Your task to perform on an android device: open app "Venmo" Image 0: 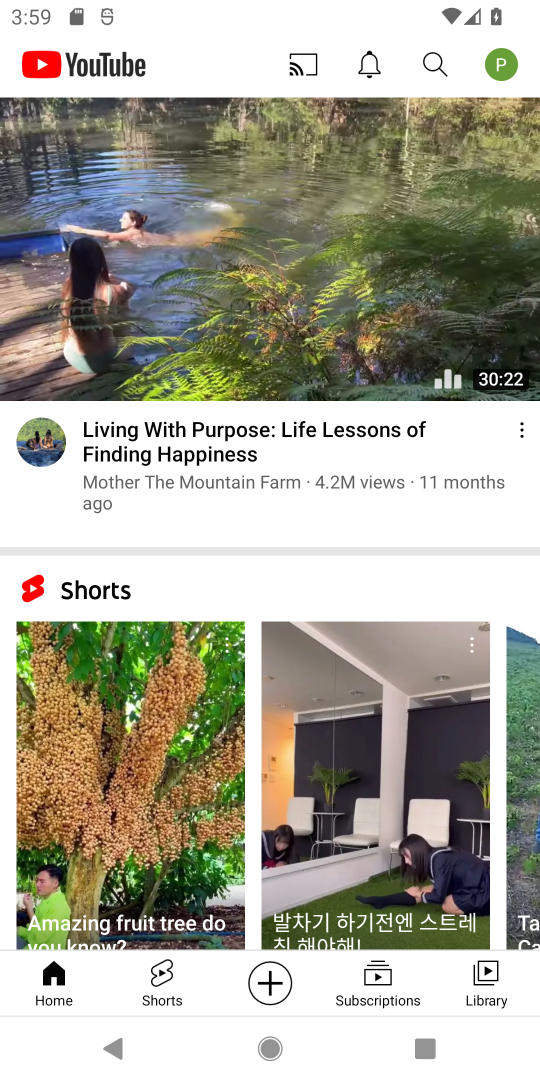
Step 0: press home button
Your task to perform on an android device: open app "Venmo" Image 1: 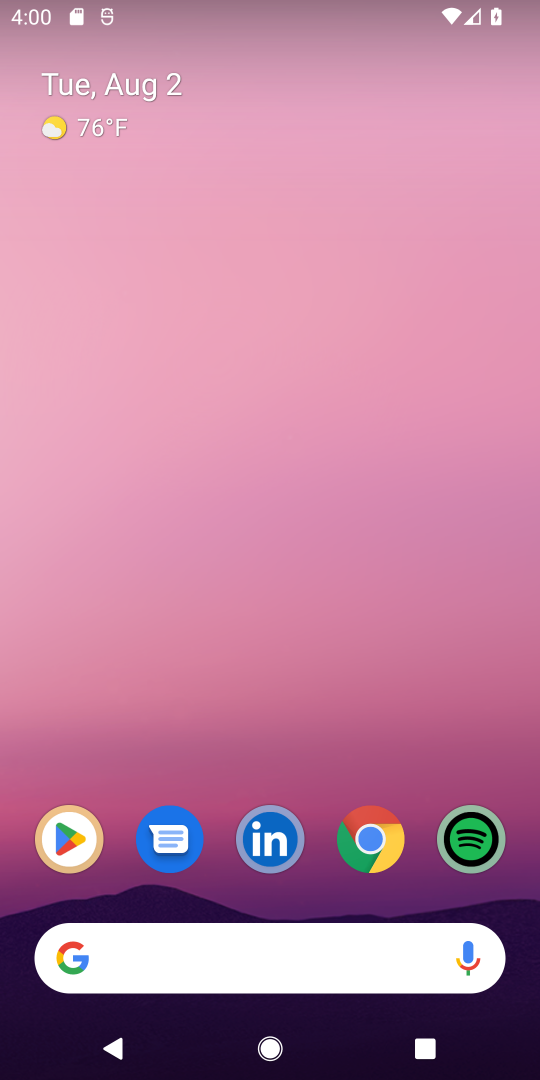
Step 1: click (101, 864)
Your task to perform on an android device: open app "Venmo" Image 2: 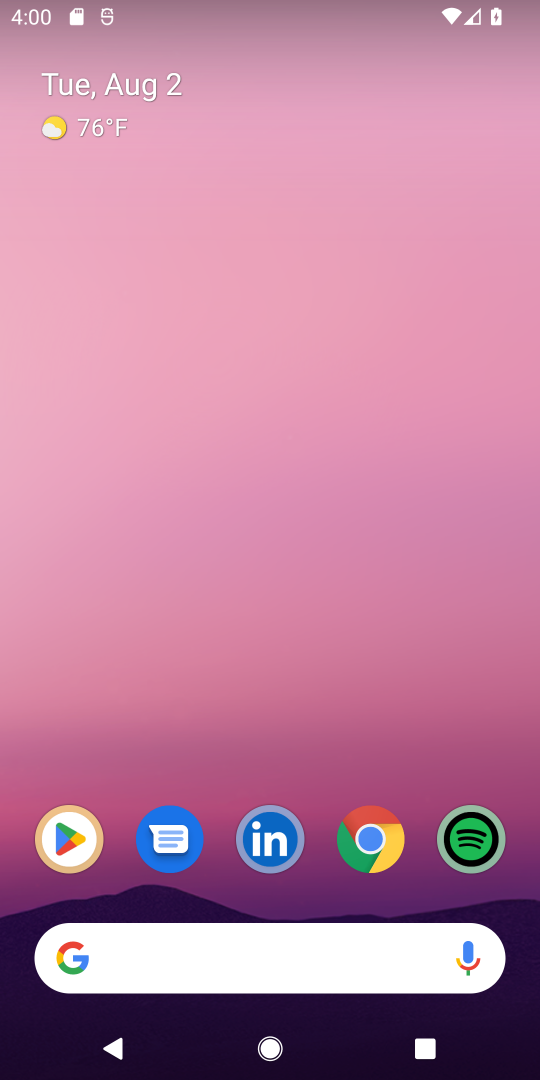
Step 2: click (66, 854)
Your task to perform on an android device: open app "Venmo" Image 3: 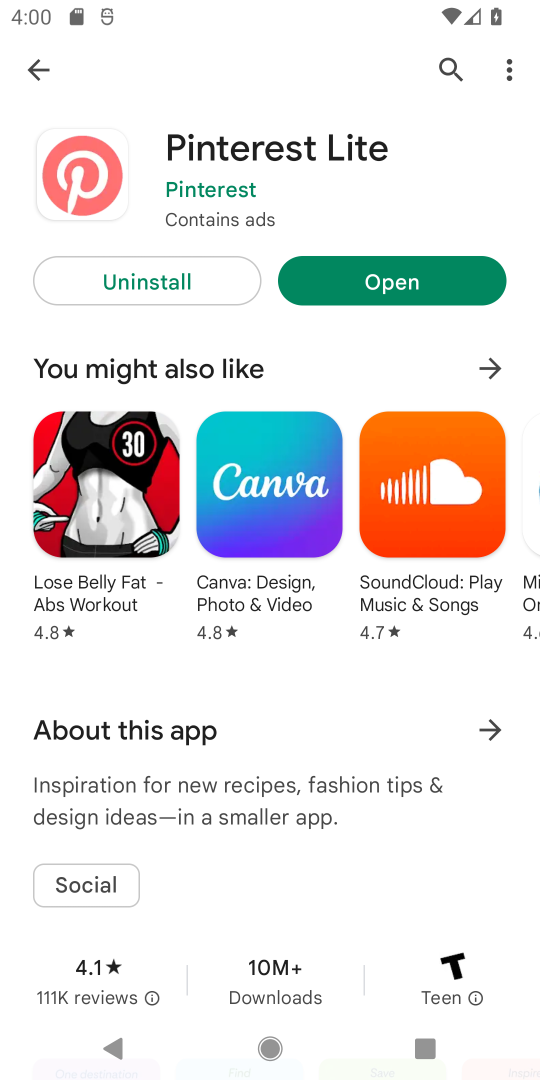
Step 3: click (457, 85)
Your task to perform on an android device: open app "Venmo" Image 4: 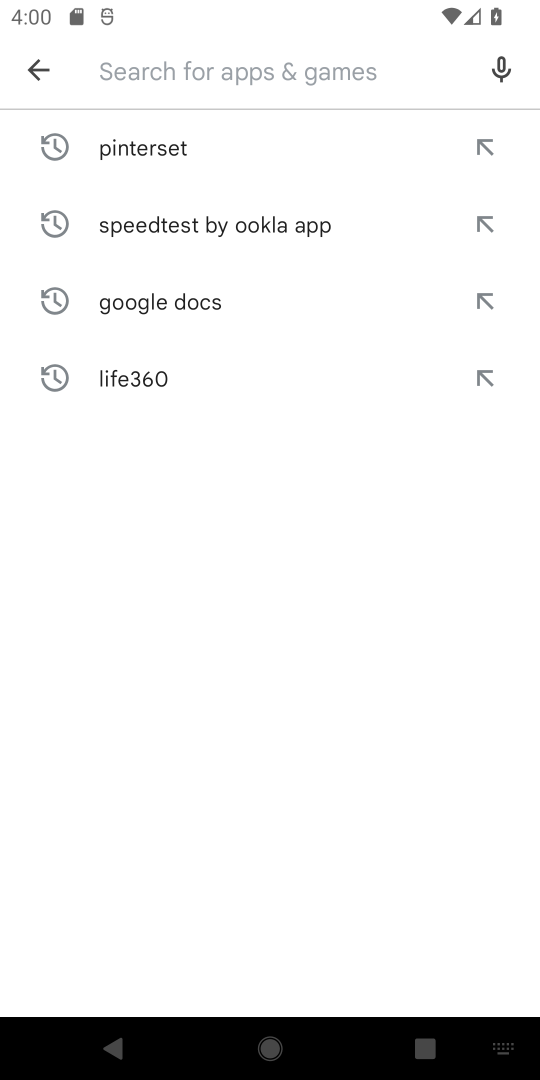
Step 4: type "venmo"
Your task to perform on an android device: open app "Venmo" Image 5: 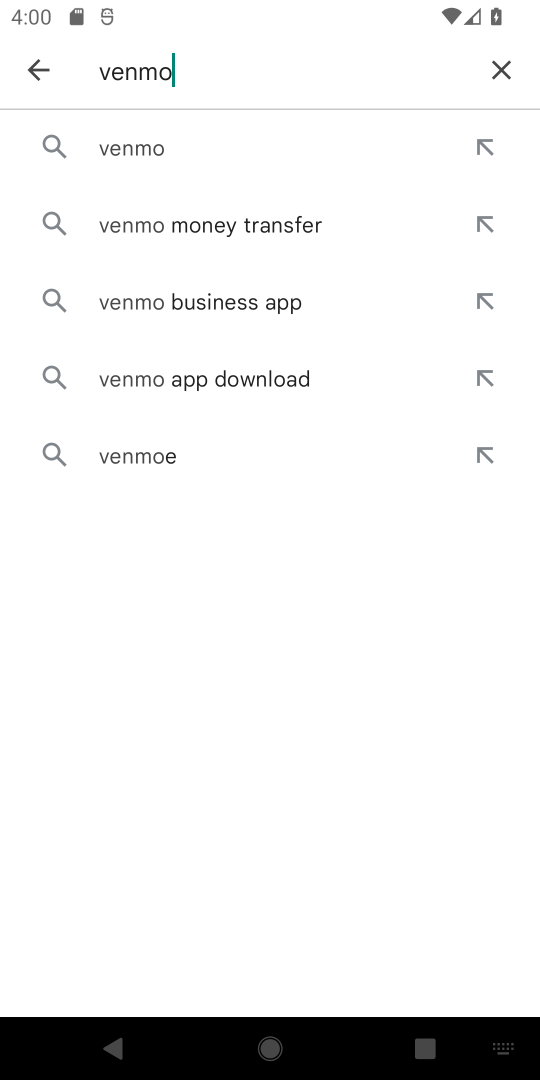
Step 5: click (273, 169)
Your task to perform on an android device: open app "Venmo" Image 6: 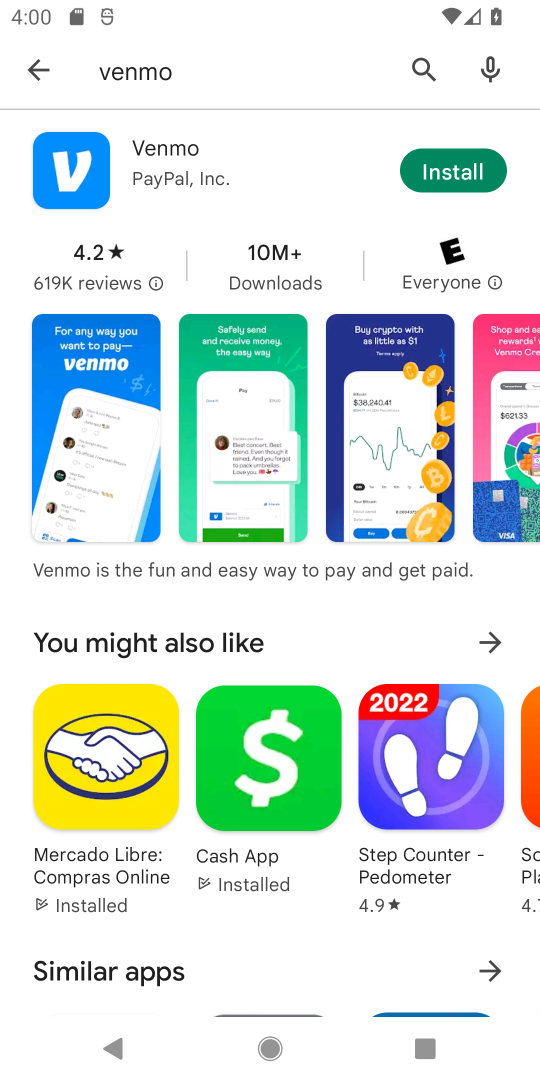
Step 6: click (433, 186)
Your task to perform on an android device: open app "Venmo" Image 7: 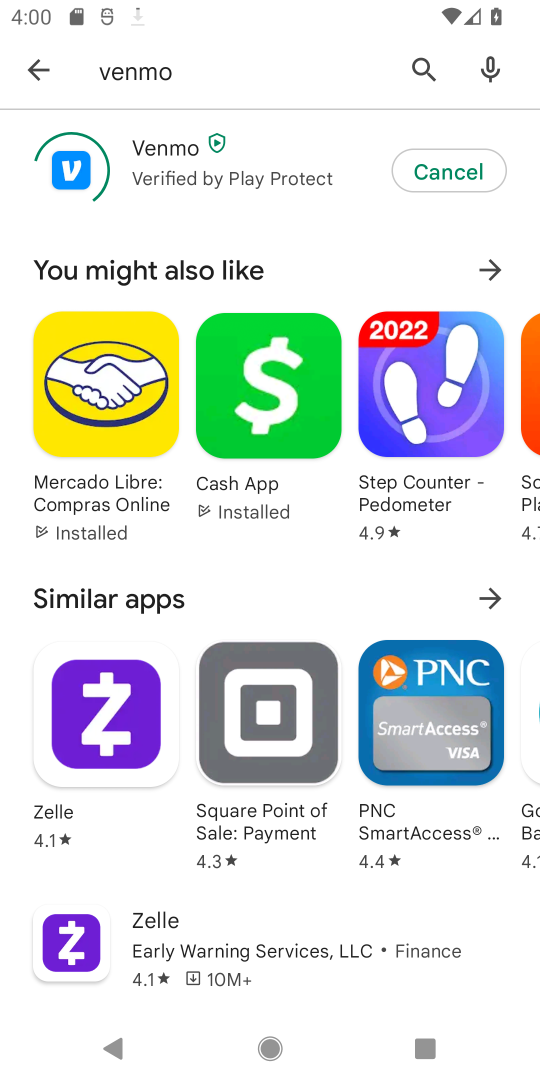
Step 7: task complete